Your task to perform on an android device: What's on my calendar today? Image 0: 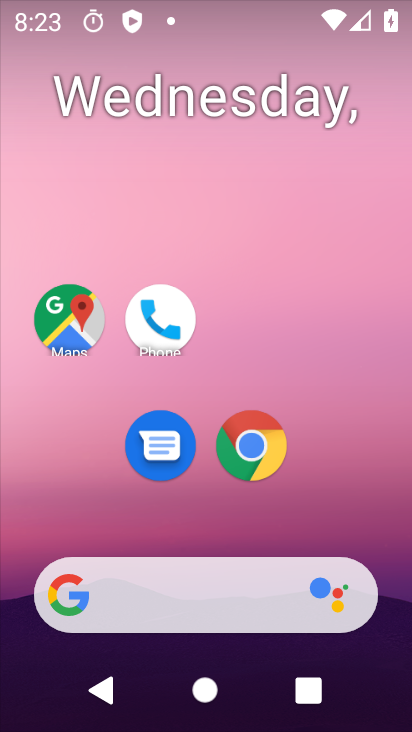
Step 0: drag from (369, 508) to (403, 617)
Your task to perform on an android device: What's on my calendar today? Image 1: 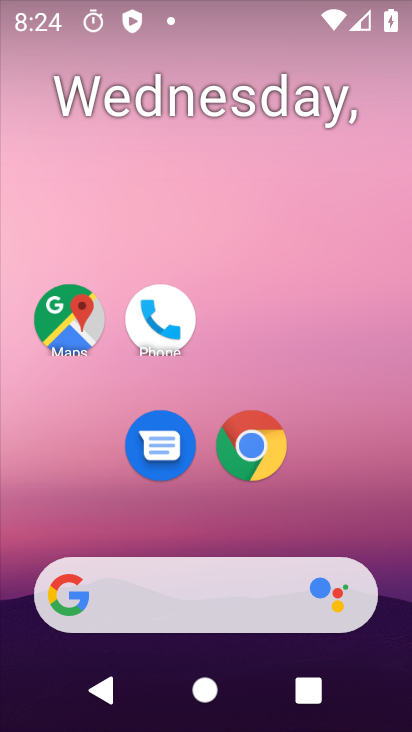
Step 1: drag from (292, 514) to (407, 237)
Your task to perform on an android device: What's on my calendar today? Image 2: 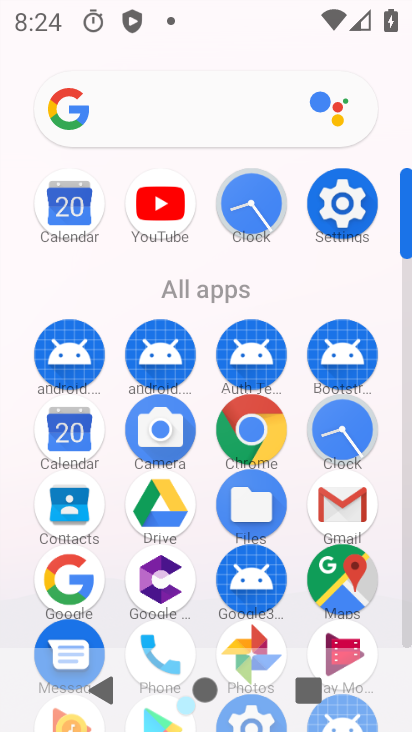
Step 2: click (79, 219)
Your task to perform on an android device: What's on my calendar today? Image 3: 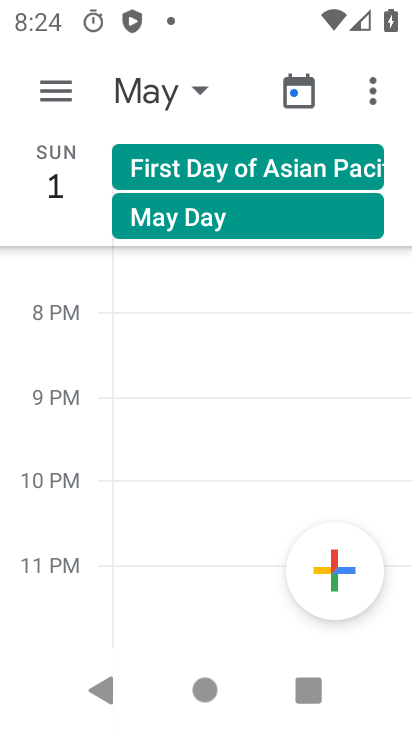
Step 3: click (57, 87)
Your task to perform on an android device: What's on my calendar today? Image 4: 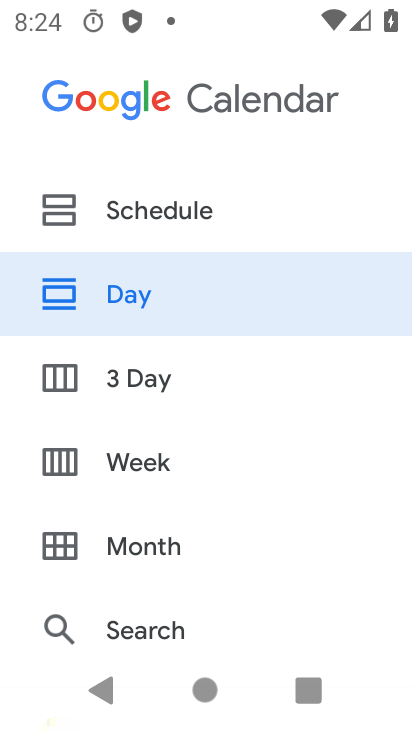
Step 4: click (98, 277)
Your task to perform on an android device: What's on my calendar today? Image 5: 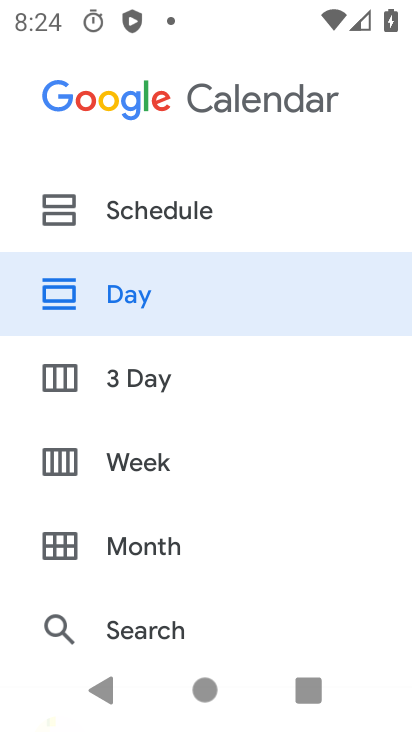
Step 5: press back button
Your task to perform on an android device: What's on my calendar today? Image 6: 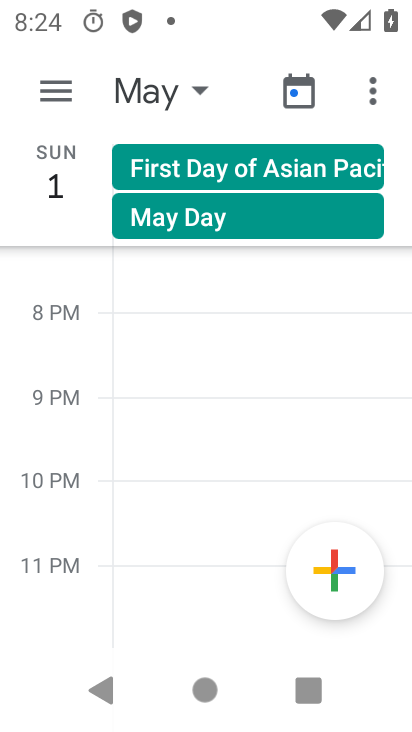
Step 6: click (141, 101)
Your task to perform on an android device: What's on my calendar today? Image 7: 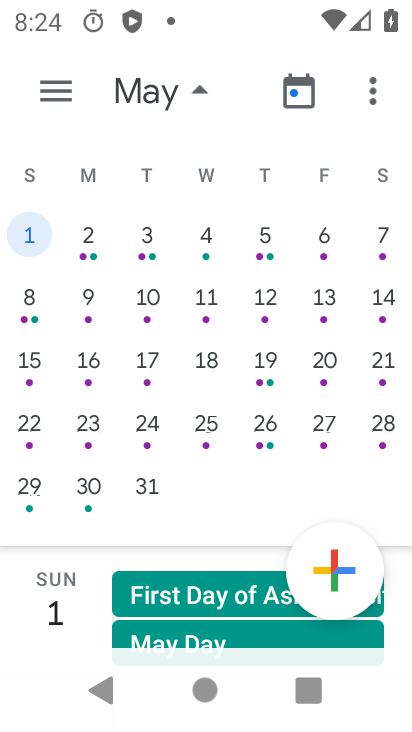
Step 7: drag from (68, 289) to (64, 29)
Your task to perform on an android device: What's on my calendar today? Image 8: 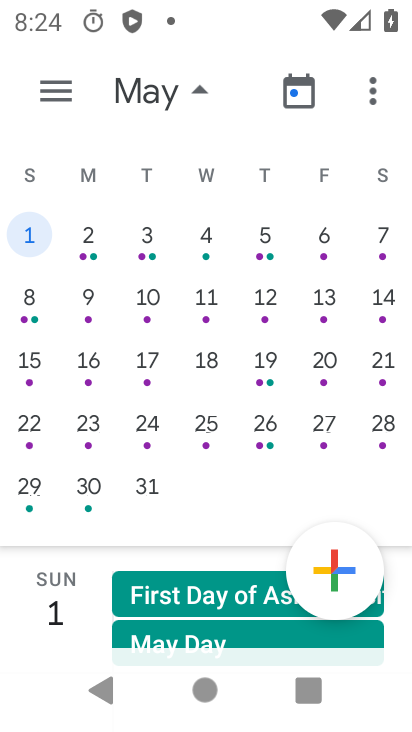
Step 8: drag from (174, 526) to (189, 193)
Your task to perform on an android device: What's on my calendar today? Image 9: 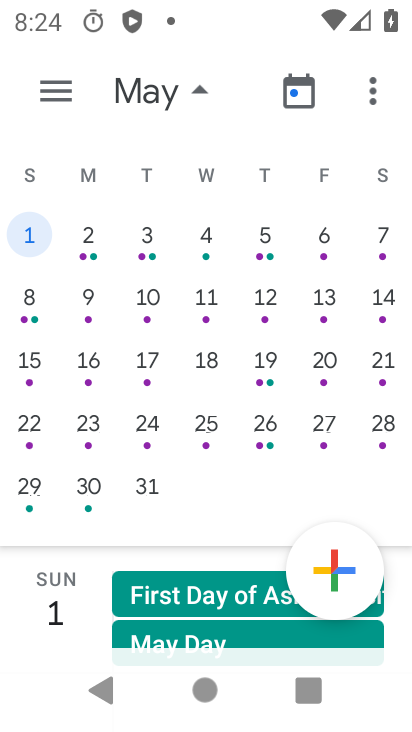
Step 9: drag from (69, 341) to (403, 440)
Your task to perform on an android device: What's on my calendar today? Image 10: 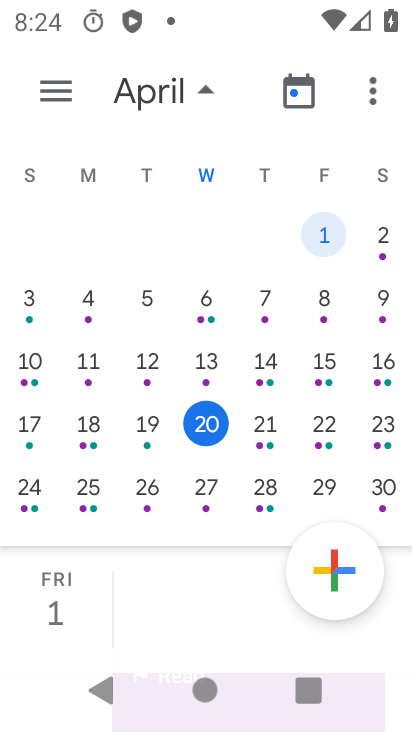
Step 10: click (273, 423)
Your task to perform on an android device: What's on my calendar today? Image 11: 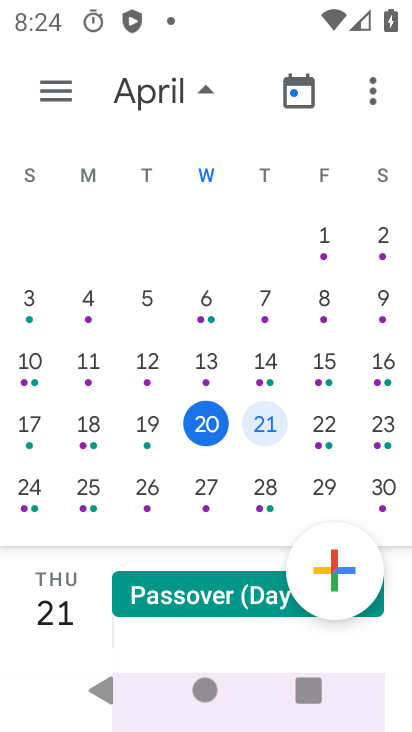
Step 11: task complete